Your task to perform on an android device: Open the calendar and show me this week's events Image 0: 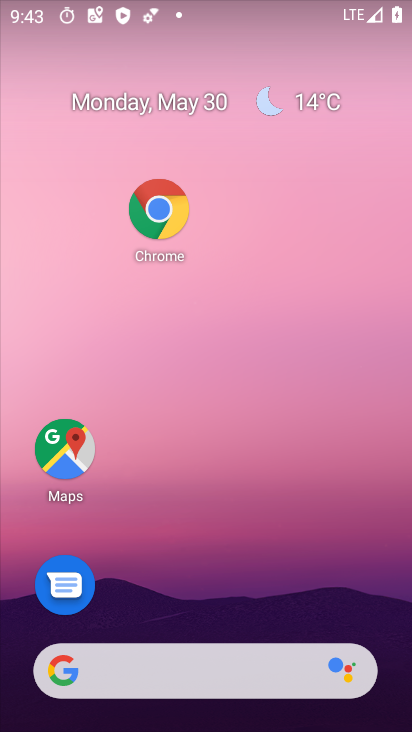
Step 0: drag from (204, 577) to (297, 89)
Your task to perform on an android device: Open the calendar and show me this week's events Image 1: 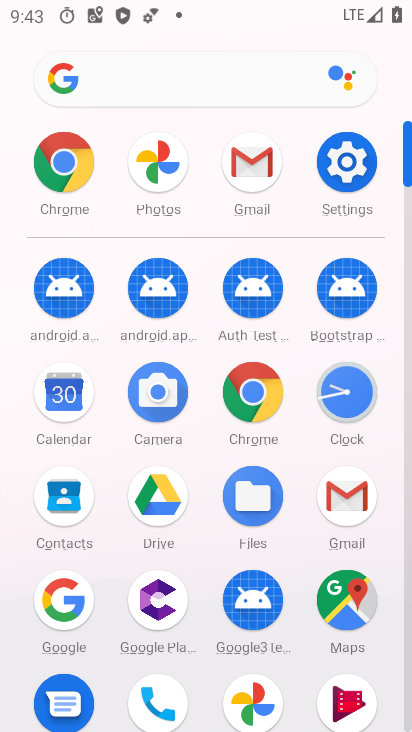
Step 1: drag from (200, 575) to (232, 334)
Your task to perform on an android device: Open the calendar and show me this week's events Image 2: 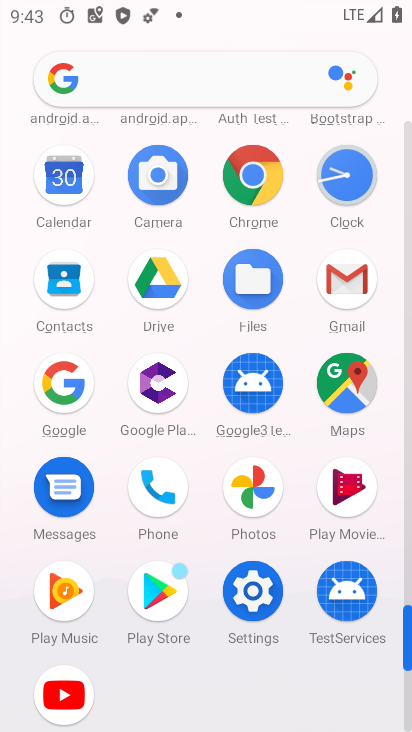
Step 2: click (57, 190)
Your task to perform on an android device: Open the calendar and show me this week's events Image 3: 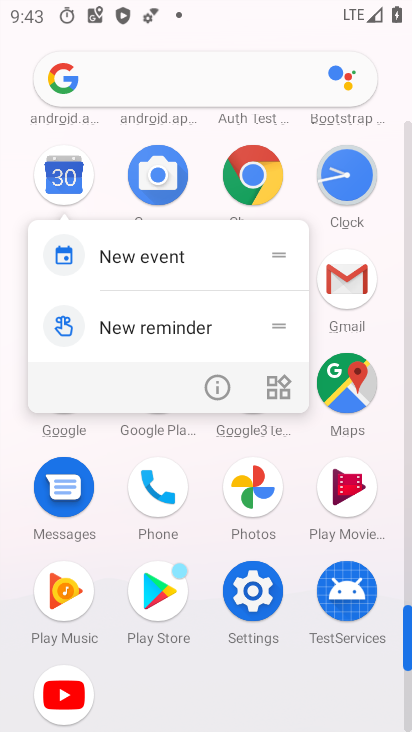
Step 3: click (211, 393)
Your task to perform on an android device: Open the calendar and show me this week's events Image 4: 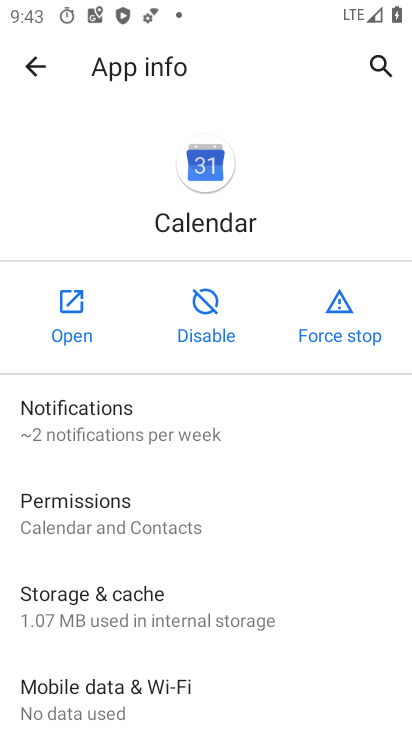
Step 4: click (85, 300)
Your task to perform on an android device: Open the calendar and show me this week's events Image 5: 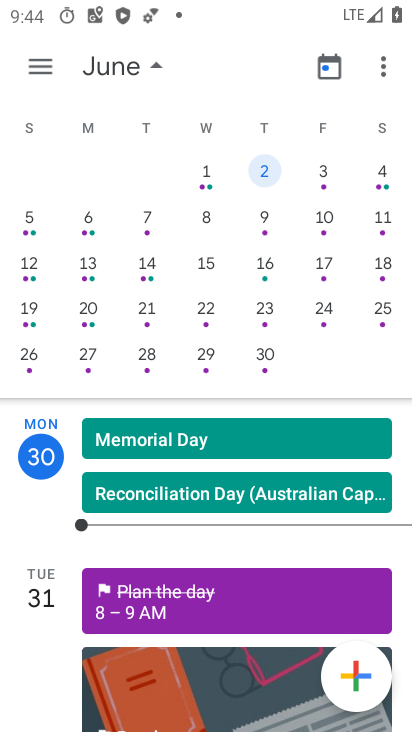
Step 5: click (318, 176)
Your task to perform on an android device: Open the calendar and show me this week's events Image 6: 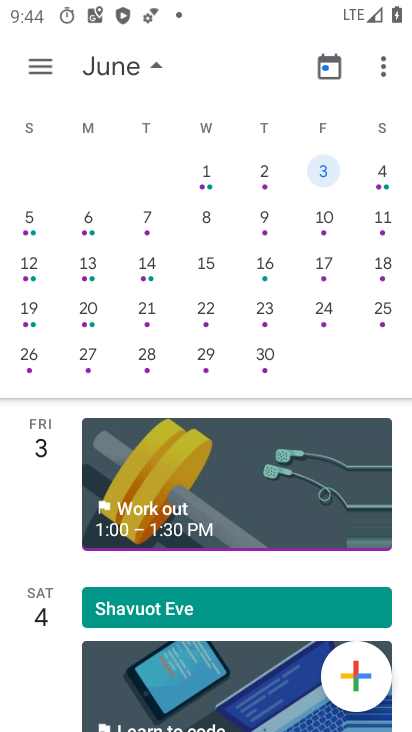
Step 6: task complete